Your task to perform on an android device: open app "Microsoft Outlook" Image 0: 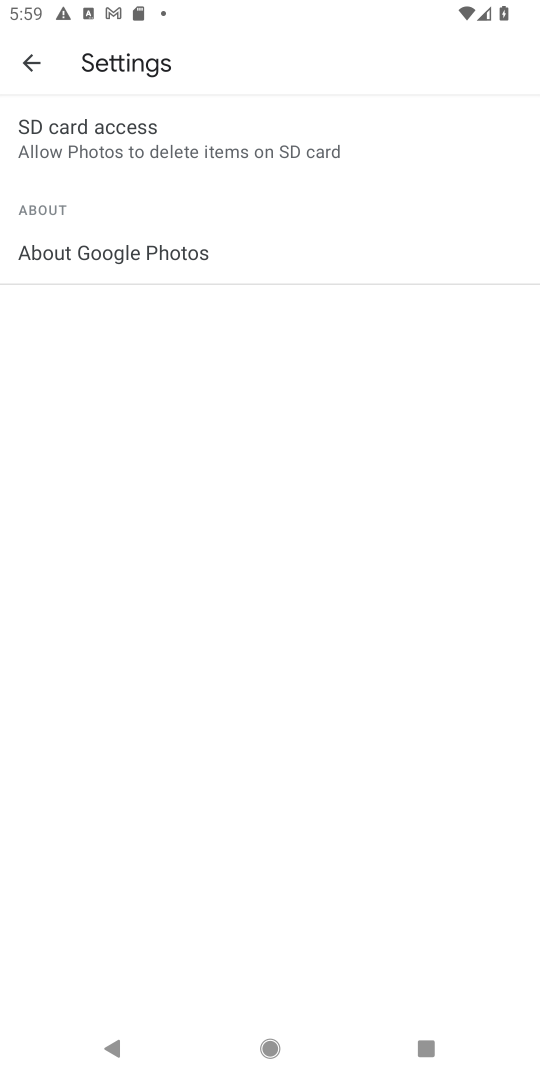
Step 0: press home button
Your task to perform on an android device: open app "Microsoft Outlook" Image 1: 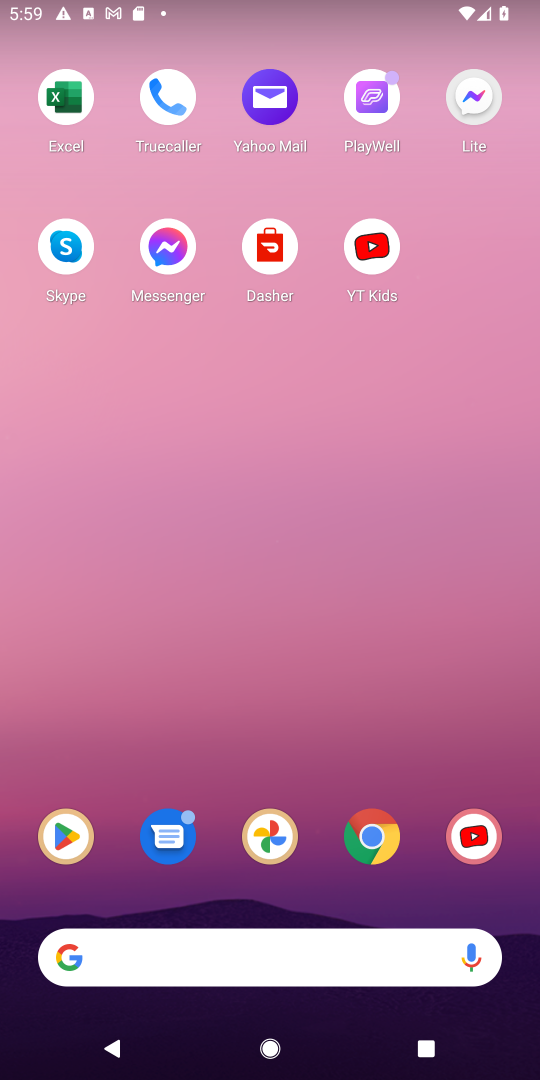
Step 1: click (68, 831)
Your task to perform on an android device: open app "Microsoft Outlook" Image 2: 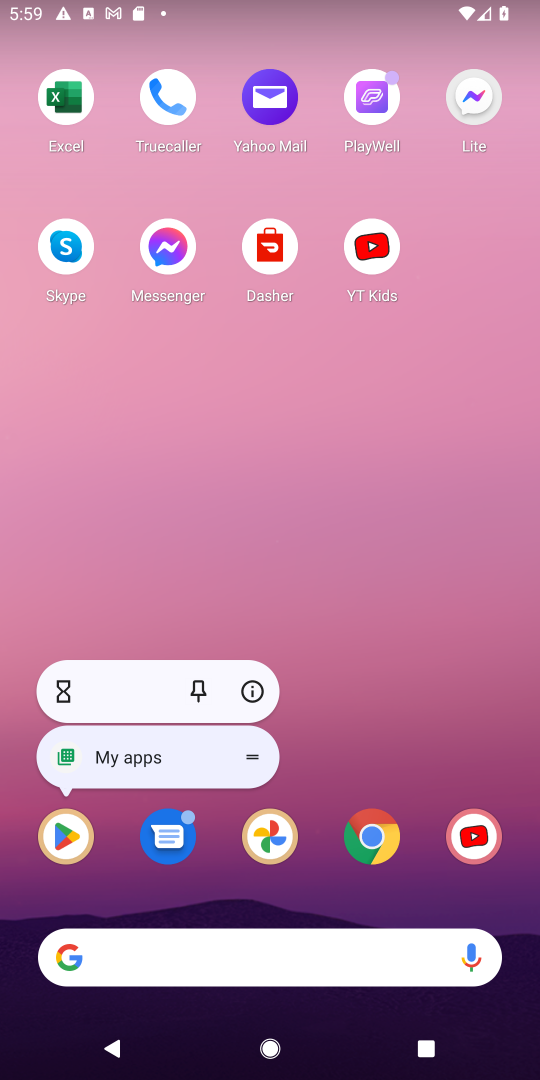
Step 2: click (55, 837)
Your task to perform on an android device: open app "Microsoft Outlook" Image 3: 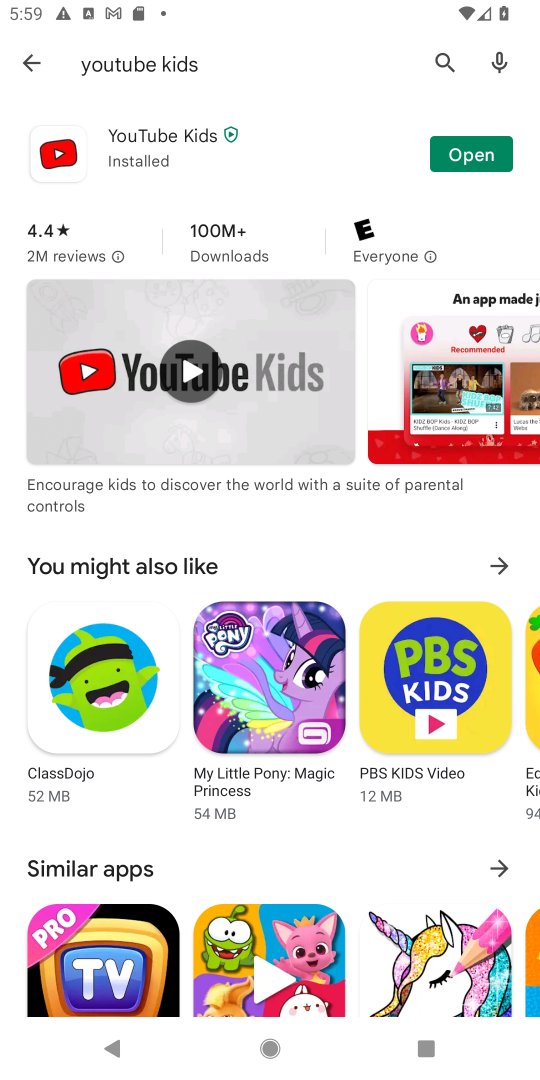
Step 3: click (435, 58)
Your task to perform on an android device: open app "Microsoft Outlook" Image 4: 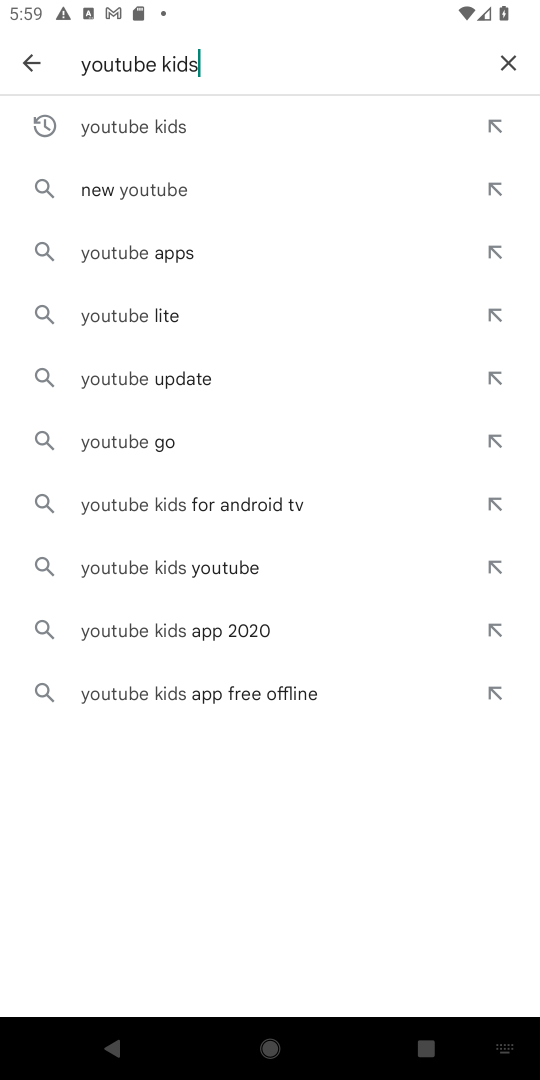
Step 4: click (500, 51)
Your task to perform on an android device: open app "Microsoft Outlook" Image 5: 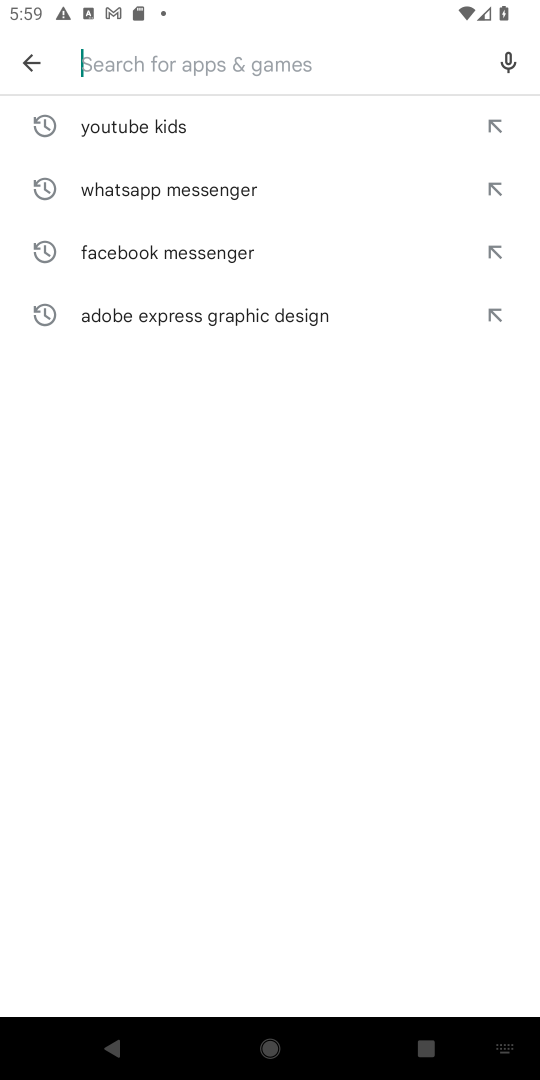
Step 5: type "Microsoft Outlook"
Your task to perform on an android device: open app "Microsoft Outlook" Image 6: 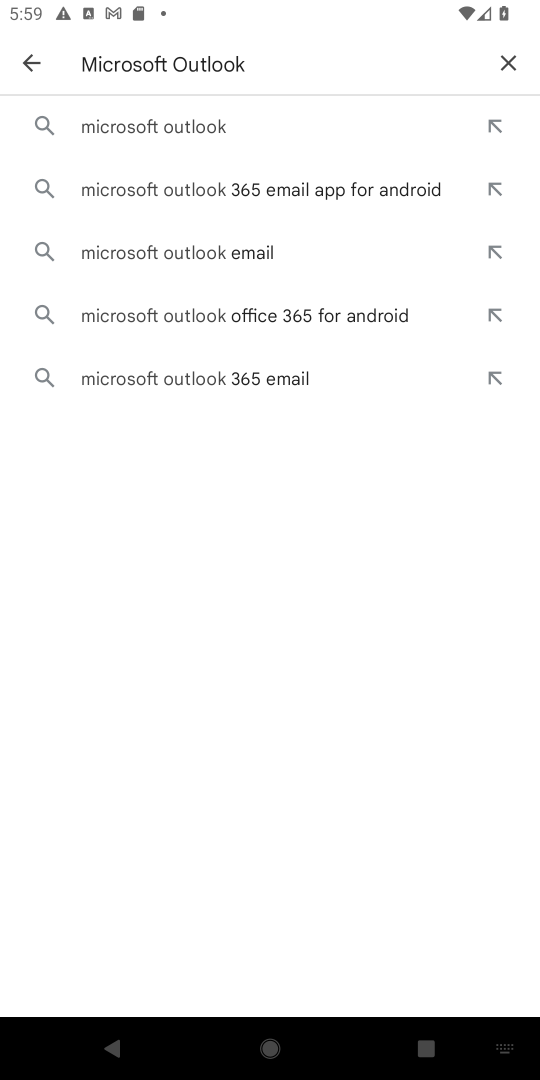
Step 6: click (184, 128)
Your task to perform on an android device: open app "Microsoft Outlook" Image 7: 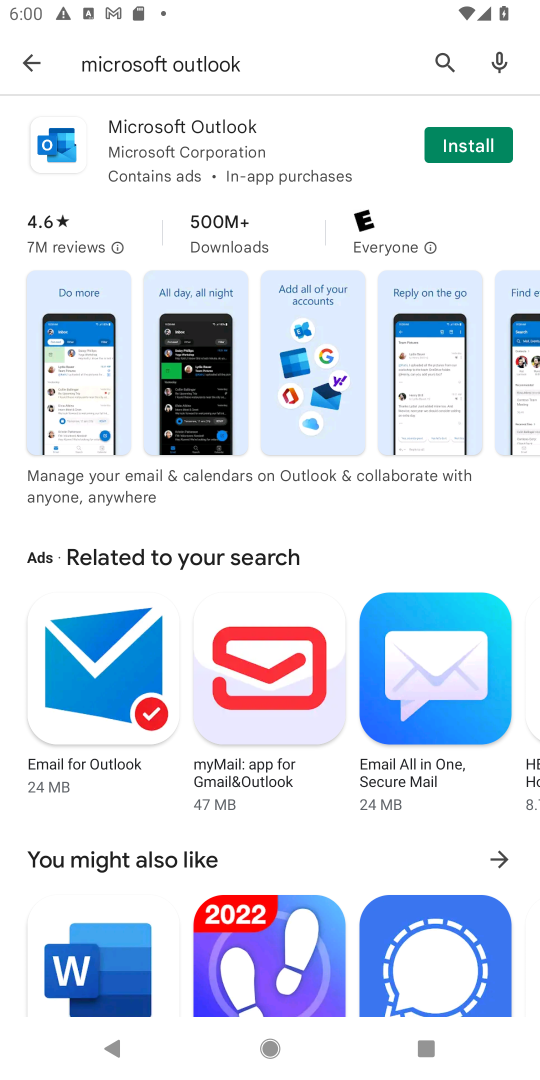
Step 7: task complete